Your task to perform on an android device: Open CNN.com Image 0: 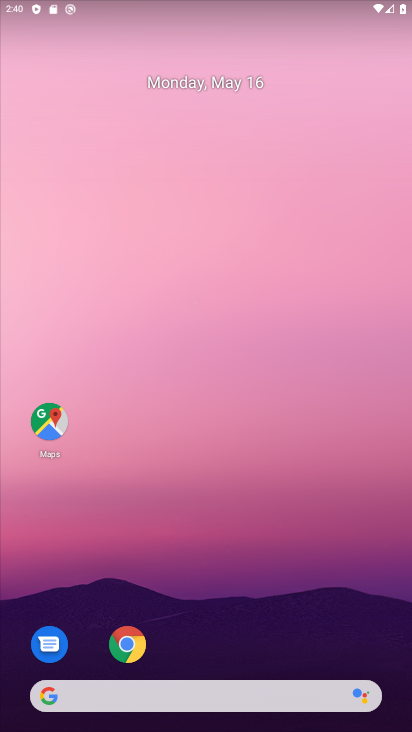
Step 0: click (126, 652)
Your task to perform on an android device: Open CNN.com Image 1: 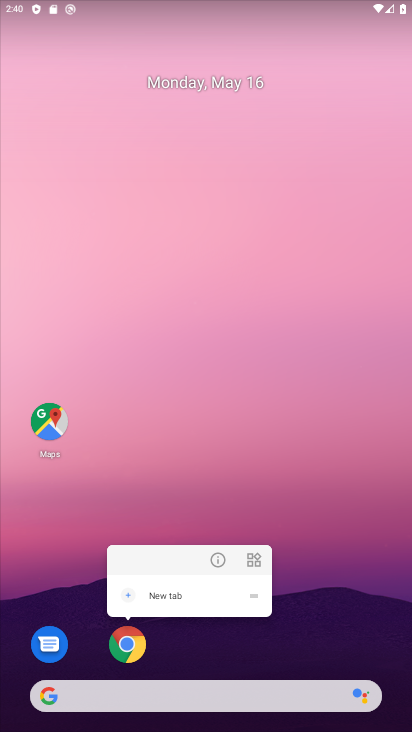
Step 1: click (135, 654)
Your task to perform on an android device: Open CNN.com Image 2: 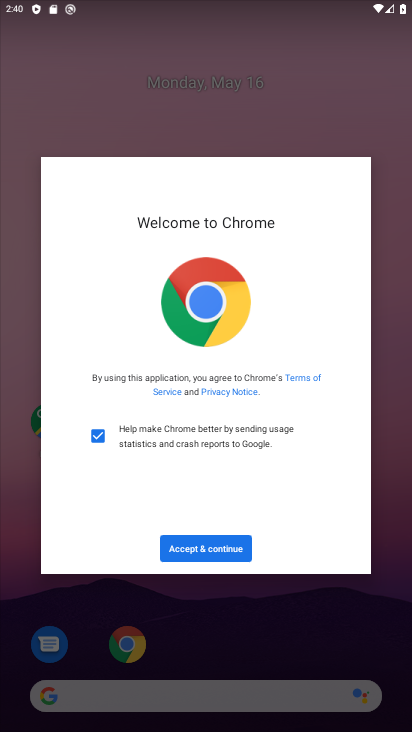
Step 2: click (134, 653)
Your task to perform on an android device: Open CNN.com Image 3: 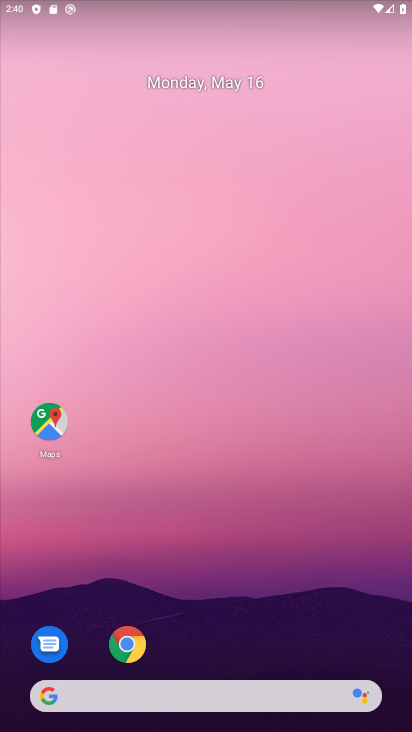
Step 3: click (220, 556)
Your task to perform on an android device: Open CNN.com Image 4: 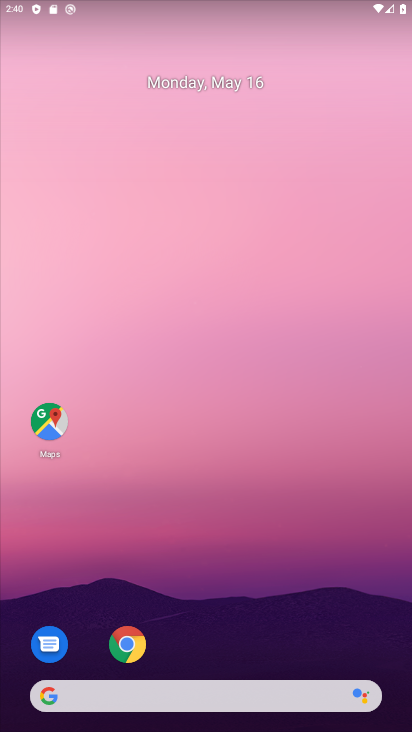
Step 4: click (145, 642)
Your task to perform on an android device: Open CNN.com Image 5: 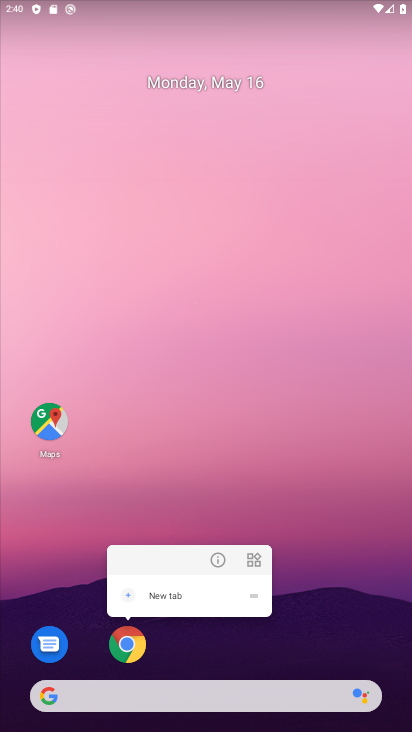
Step 5: click (137, 652)
Your task to perform on an android device: Open CNN.com Image 6: 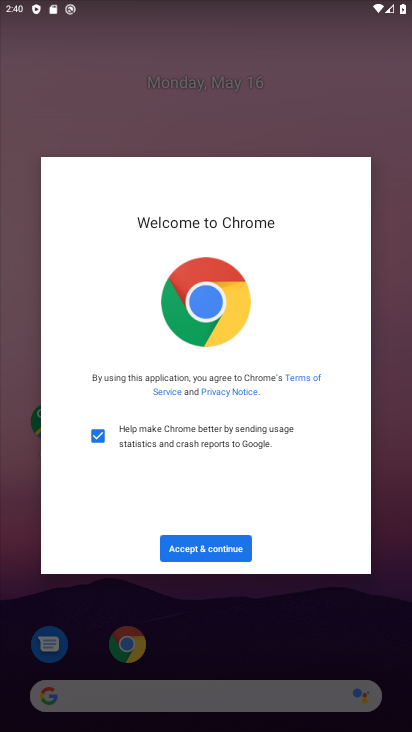
Step 6: click (207, 550)
Your task to perform on an android device: Open CNN.com Image 7: 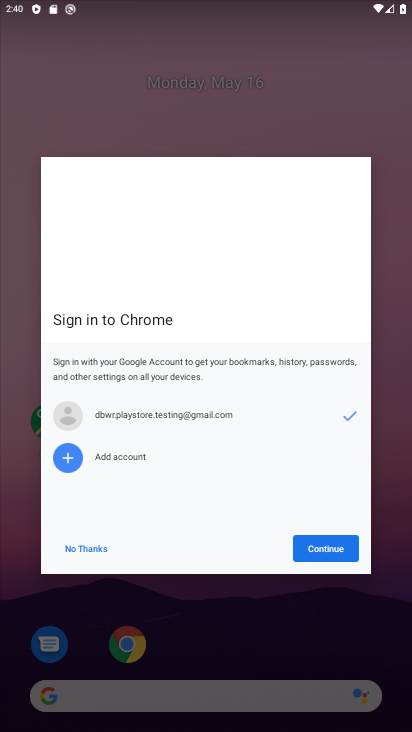
Step 7: click (323, 550)
Your task to perform on an android device: Open CNN.com Image 8: 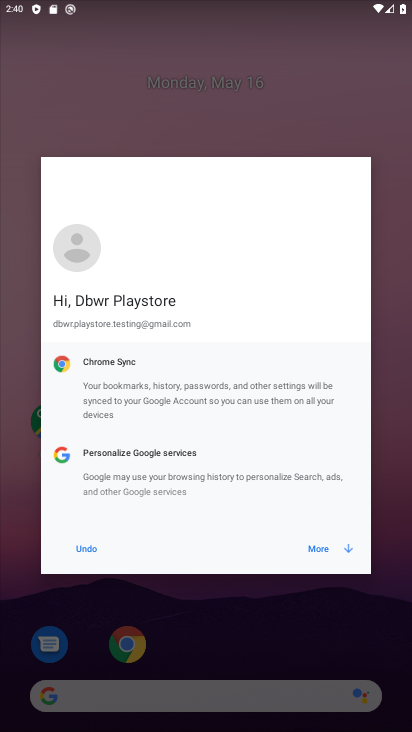
Step 8: click (324, 551)
Your task to perform on an android device: Open CNN.com Image 9: 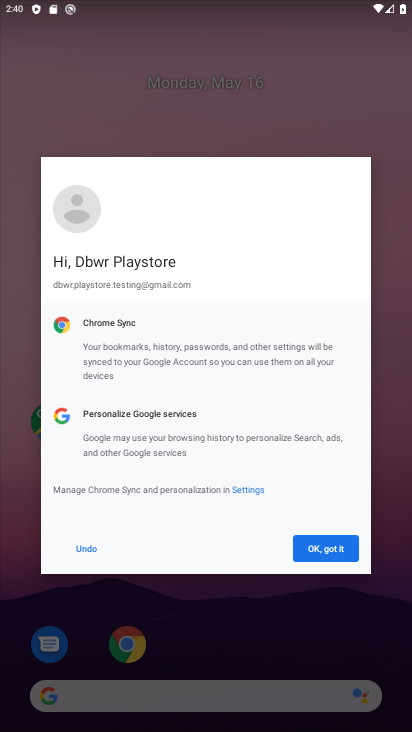
Step 9: click (325, 553)
Your task to perform on an android device: Open CNN.com Image 10: 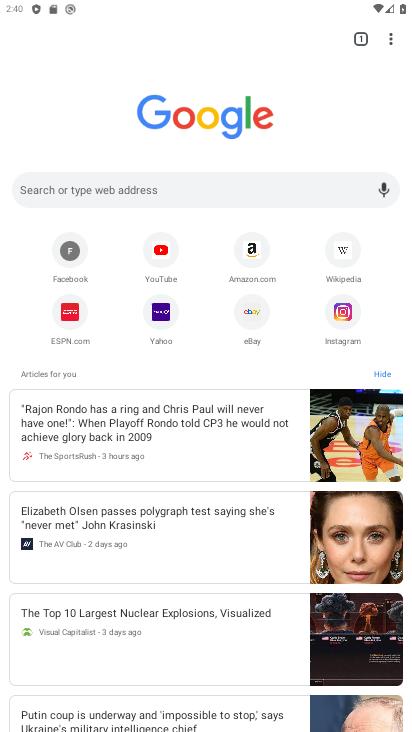
Step 10: click (163, 189)
Your task to perform on an android device: Open CNN.com Image 11: 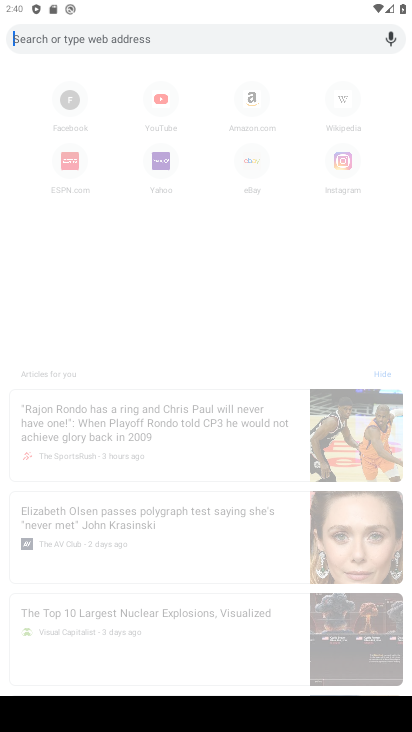
Step 11: type "CNN.com"
Your task to perform on an android device: Open CNN.com Image 12: 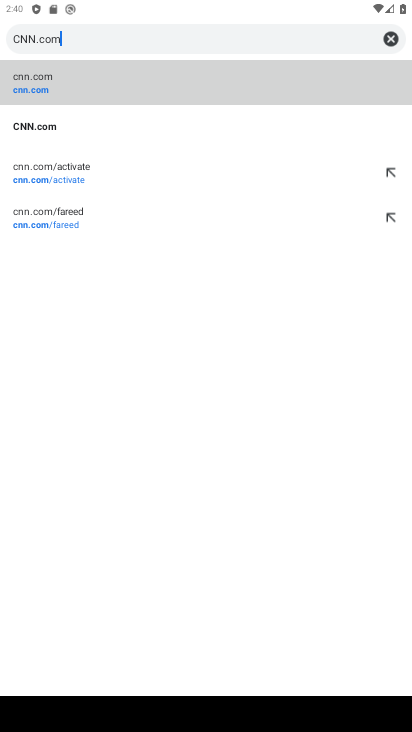
Step 12: click (67, 136)
Your task to perform on an android device: Open CNN.com Image 13: 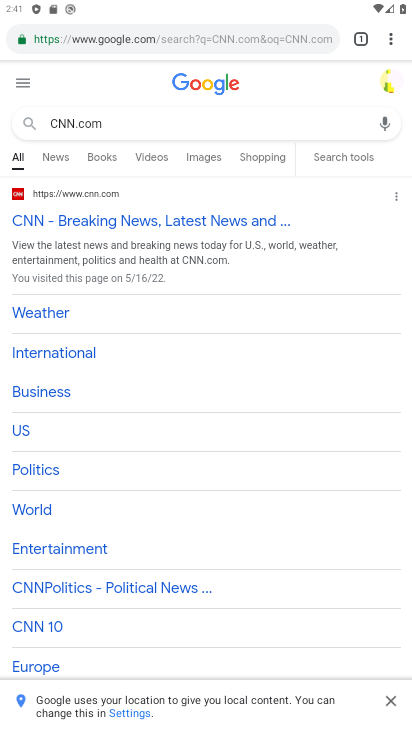
Step 13: click (118, 217)
Your task to perform on an android device: Open CNN.com Image 14: 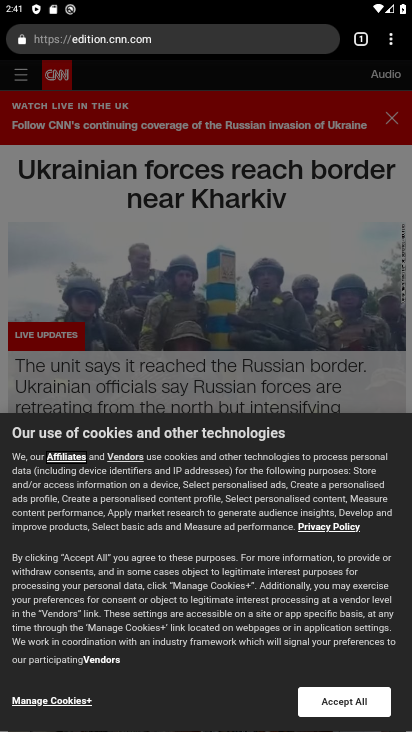
Step 14: click (352, 718)
Your task to perform on an android device: Open CNN.com Image 15: 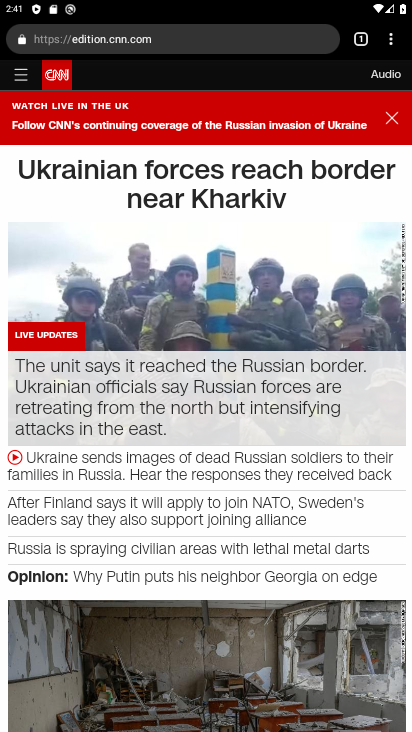
Step 15: task complete